Your task to perform on an android device: open app "Reddit" Image 0: 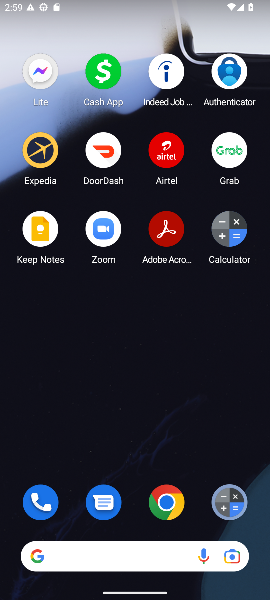
Step 0: drag from (125, 525) to (153, 8)
Your task to perform on an android device: open app "Reddit" Image 1: 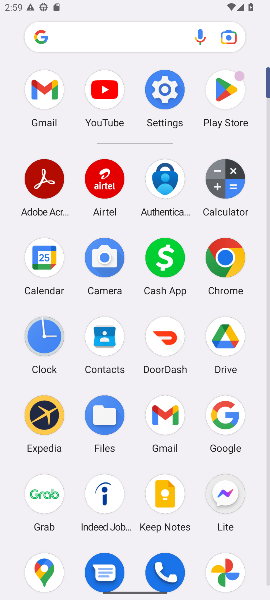
Step 1: click (233, 112)
Your task to perform on an android device: open app "Reddit" Image 2: 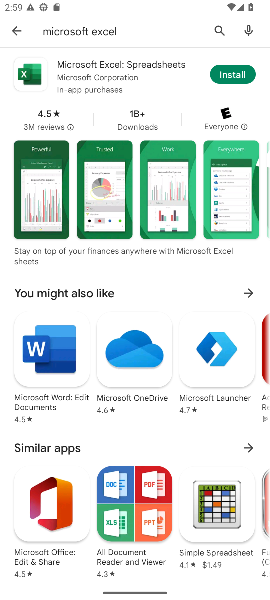
Step 2: click (215, 37)
Your task to perform on an android device: open app "Reddit" Image 3: 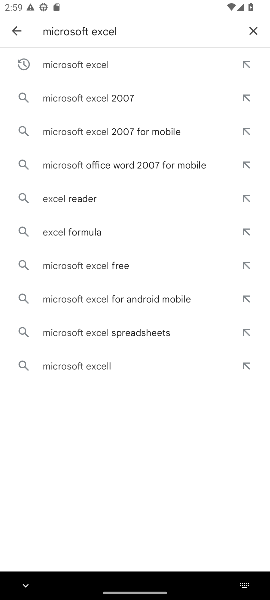
Step 3: click (244, 29)
Your task to perform on an android device: open app "Reddit" Image 4: 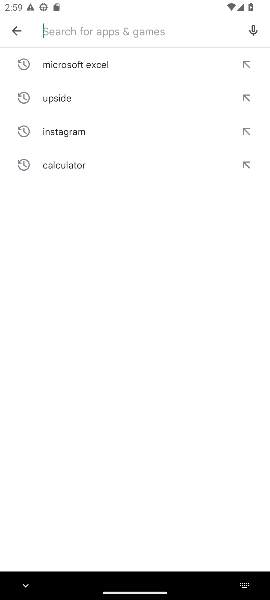
Step 4: type "reddit"
Your task to perform on an android device: open app "Reddit" Image 5: 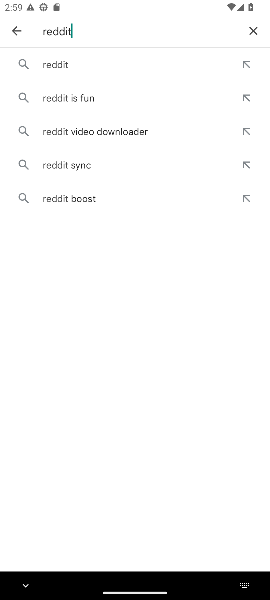
Step 5: click (142, 75)
Your task to perform on an android device: open app "Reddit" Image 6: 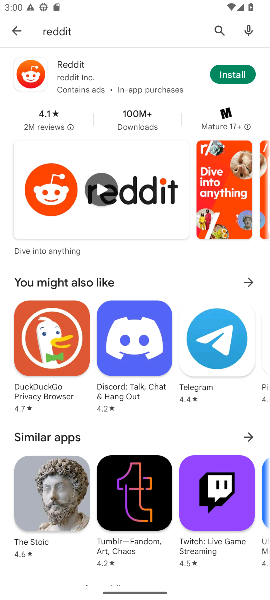
Step 6: click (228, 74)
Your task to perform on an android device: open app "Reddit" Image 7: 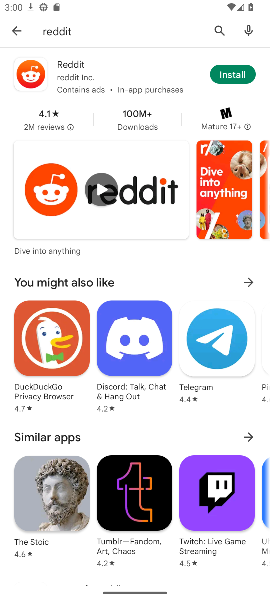
Step 7: click (224, 78)
Your task to perform on an android device: open app "Reddit" Image 8: 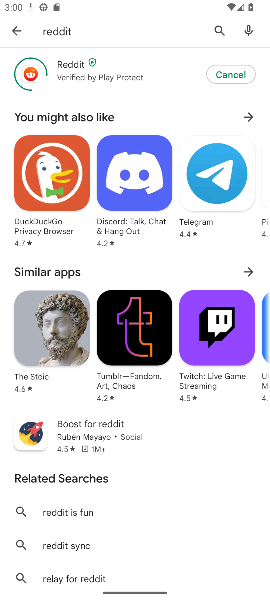
Step 8: task complete